Your task to perform on an android device: turn on the 24-hour format for clock Image 0: 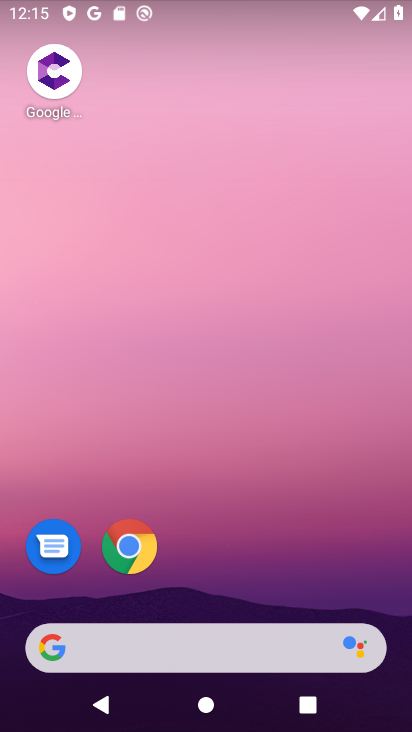
Step 0: drag from (347, 586) to (334, 121)
Your task to perform on an android device: turn on the 24-hour format for clock Image 1: 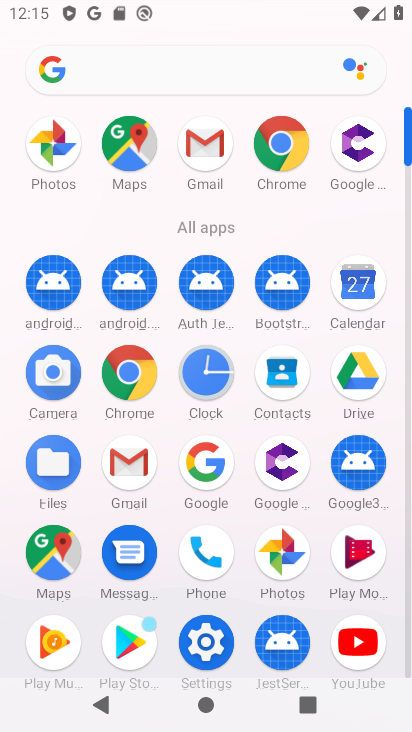
Step 1: click (214, 380)
Your task to perform on an android device: turn on the 24-hour format for clock Image 2: 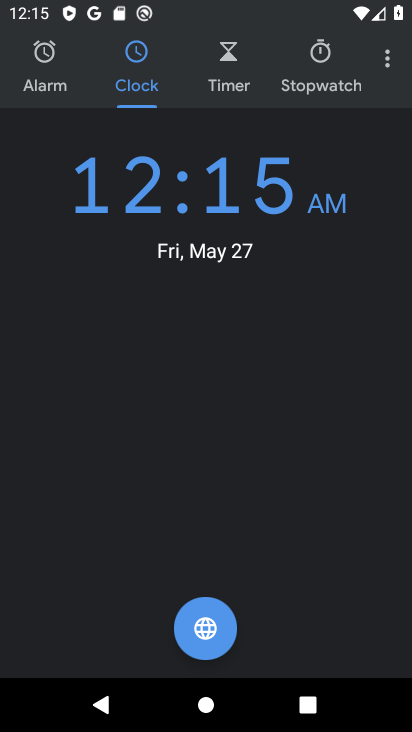
Step 2: click (386, 70)
Your task to perform on an android device: turn on the 24-hour format for clock Image 3: 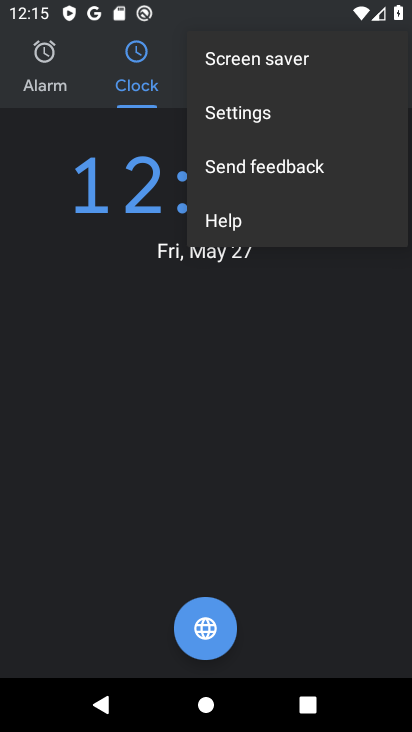
Step 3: click (242, 116)
Your task to perform on an android device: turn on the 24-hour format for clock Image 4: 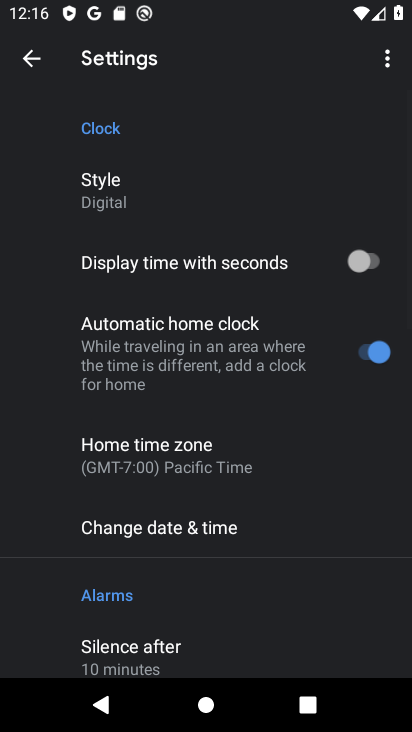
Step 4: drag from (234, 566) to (234, 248)
Your task to perform on an android device: turn on the 24-hour format for clock Image 5: 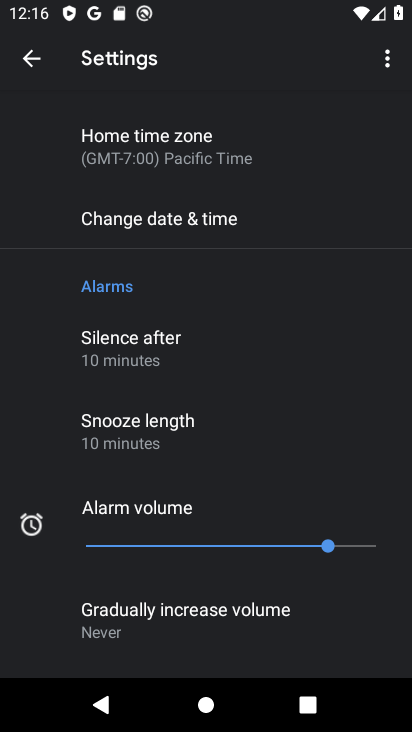
Step 5: click (241, 222)
Your task to perform on an android device: turn on the 24-hour format for clock Image 6: 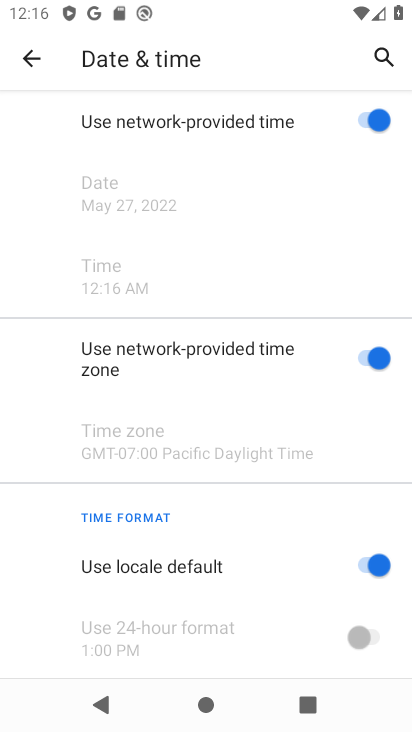
Step 6: drag from (182, 596) to (172, 253)
Your task to perform on an android device: turn on the 24-hour format for clock Image 7: 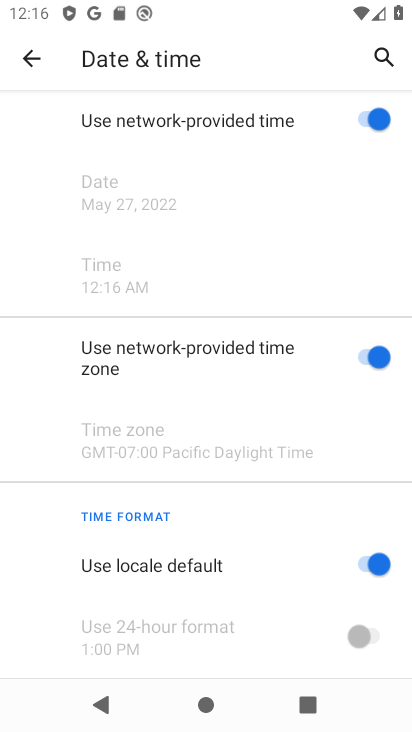
Step 7: click (369, 558)
Your task to perform on an android device: turn on the 24-hour format for clock Image 8: 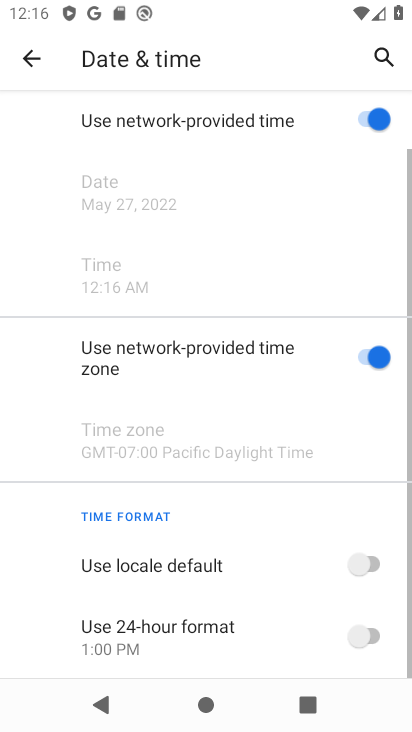
Step 8: click (374, 637)
Your task to perform on an android device: turn on the 24-hour format for clock Image 9: 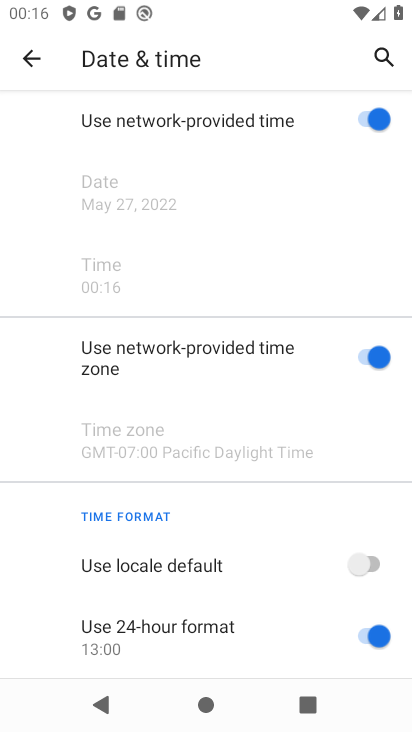
Step 9: task complete